Your task to perform on an android device: open app "Cash App" Image 0: 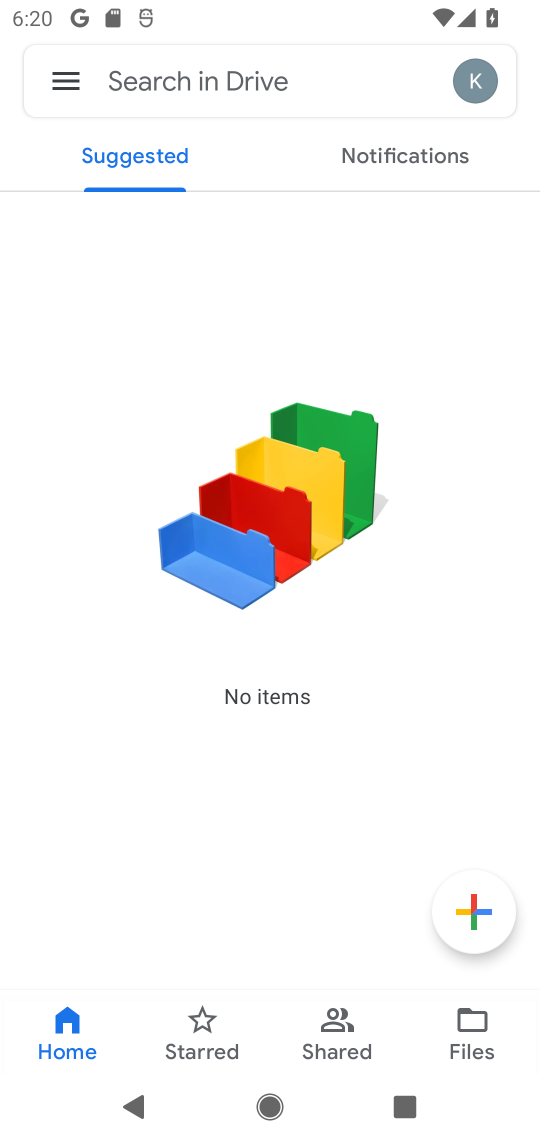
Step 0: press home button
Your task to perform on an android device: open app "Cash App" Image 1: 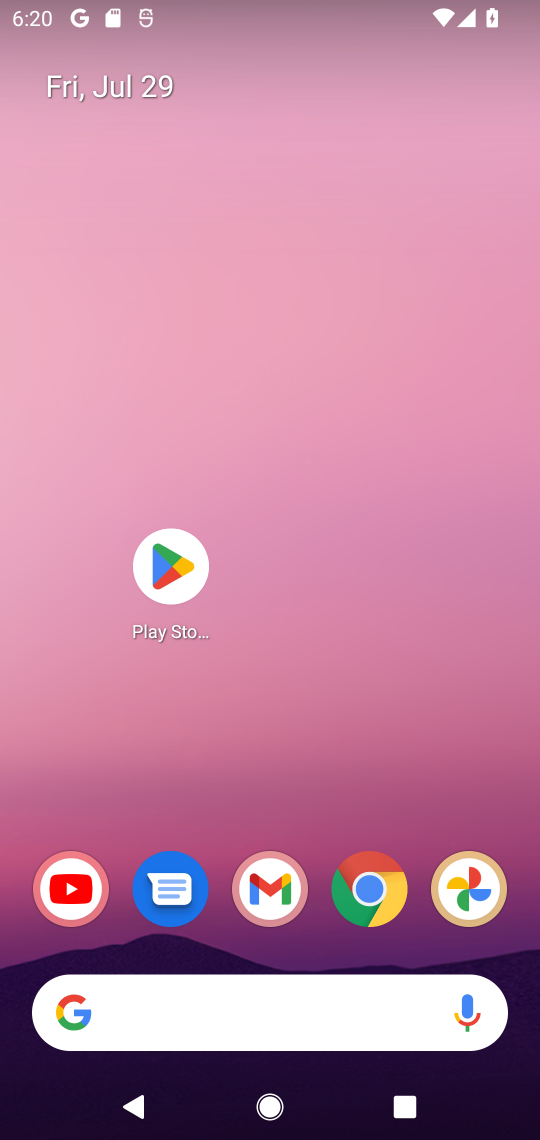
Step 1: click (184, 551)
Your task to perform on an android device: open app "Cash App" Image 2: 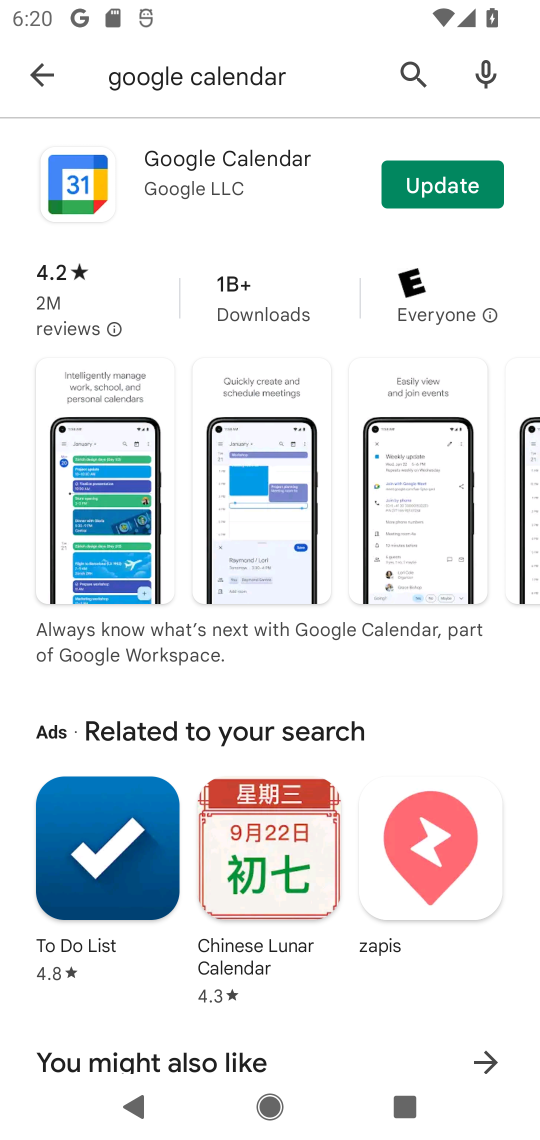
Step 2: click (405, 70)
Your task to perform on an android device: open app "Cash App" Image 3: 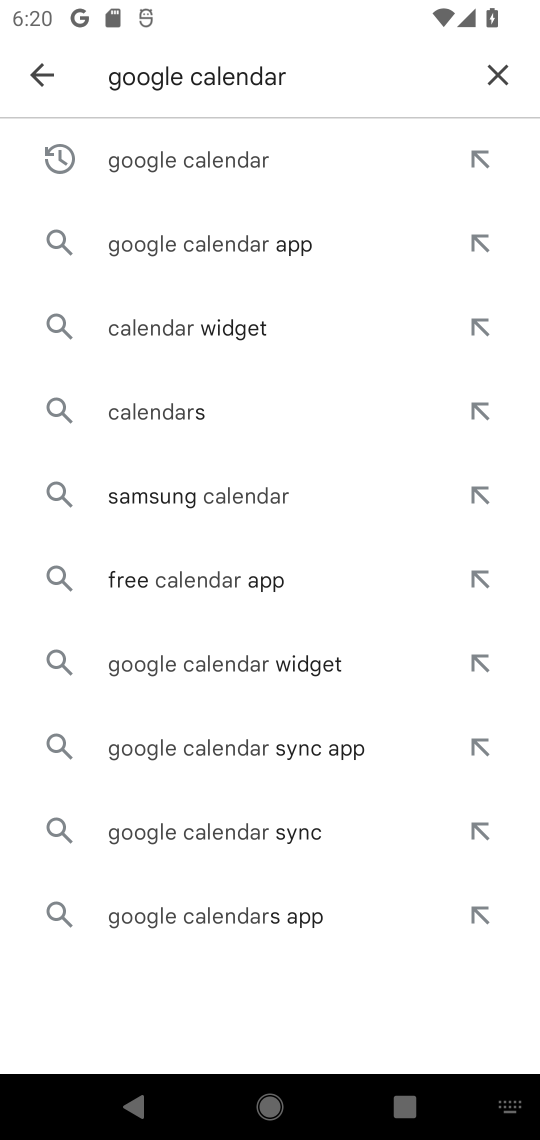
Step 3: click (506, 59)
Your task to perform on an android device: open app "Cash App" Image 4: 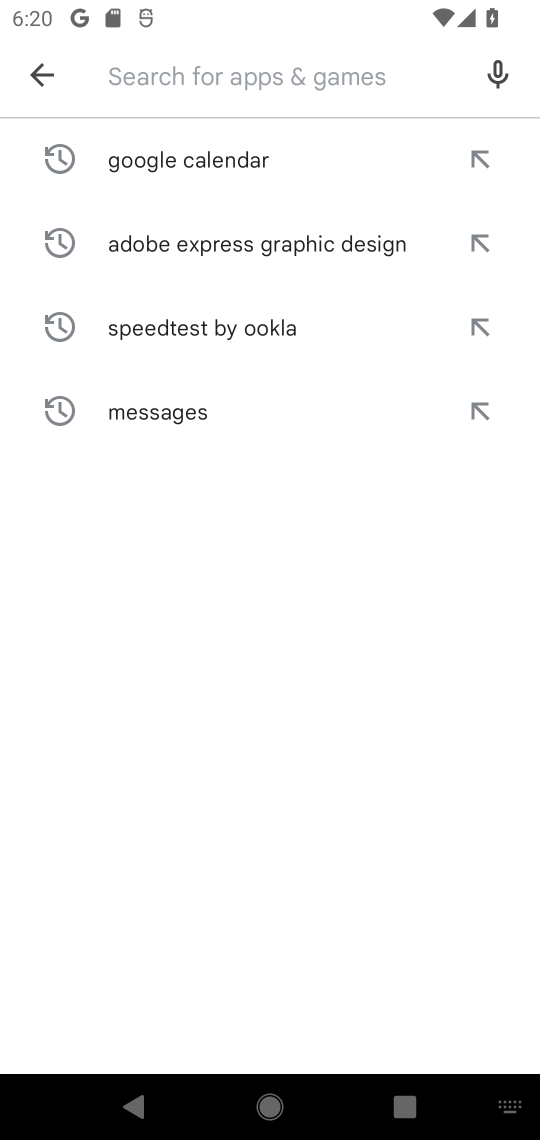
Step 4: type "Cash App"
Your task to perform on an android device: open app "Cash App" Image 5: 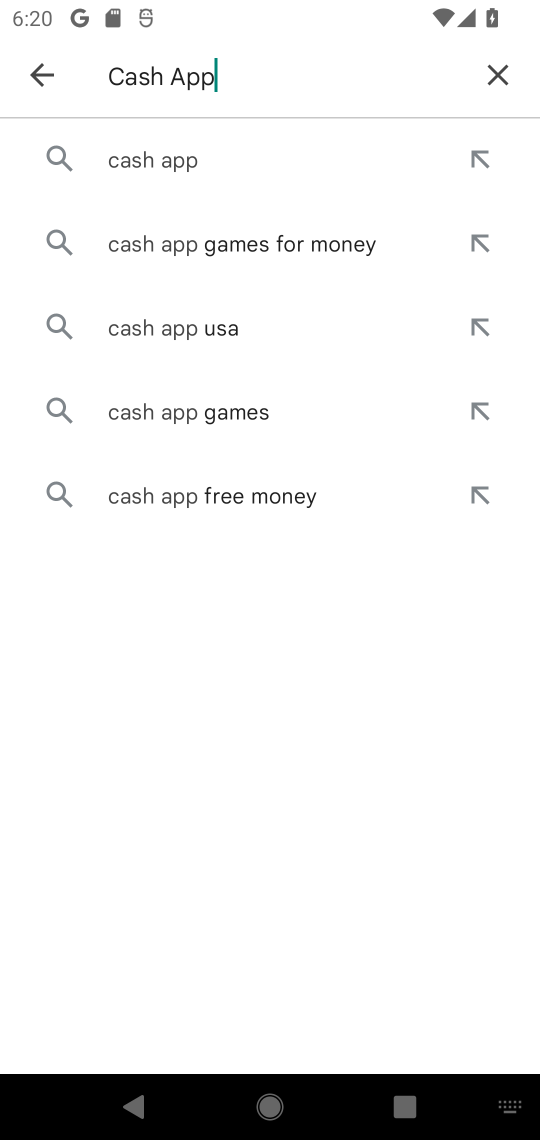
Step 5: click (140, 162)
Your task to perform on an android device: open app "Cash App" Image 6: 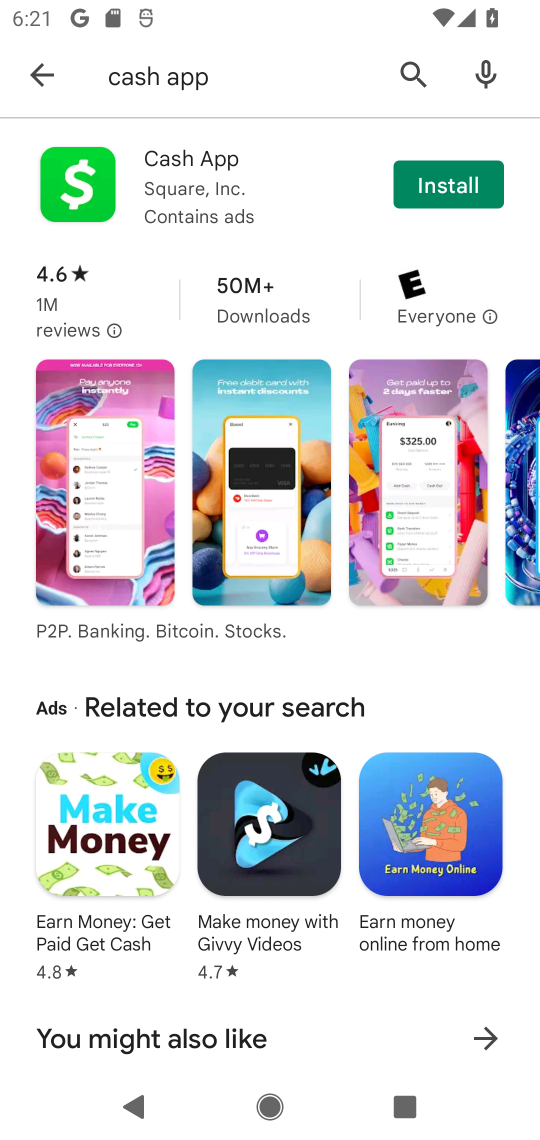
Step 6: task complete